Your task to perform on an android device: check battery use Image 0: 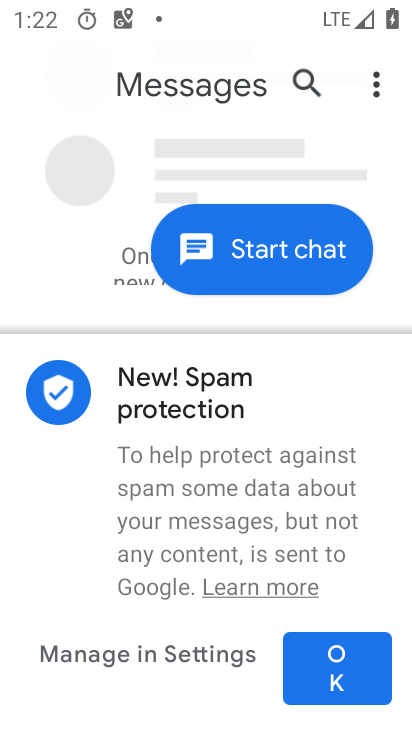
Step 0: press home button
Your task to perform on an android device: check battery use Image 1: 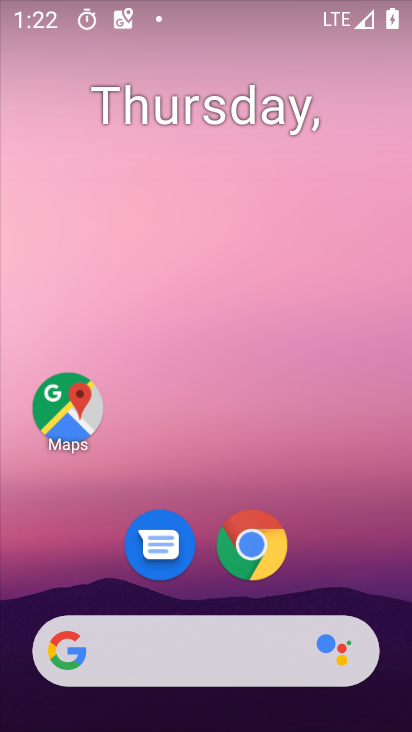
Step 1: drag from (248, 507) to (328, 1)
Your task to perform on an android device: check battery use Image 2: 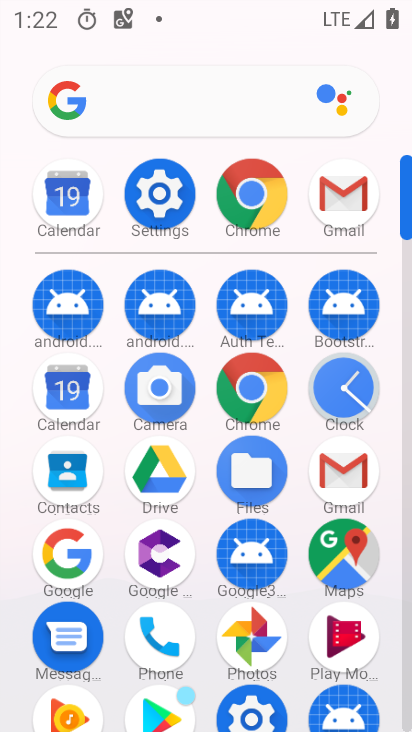
Step 2: click (171, 187)
Your task to perform on an android device: check battery use Image 3: 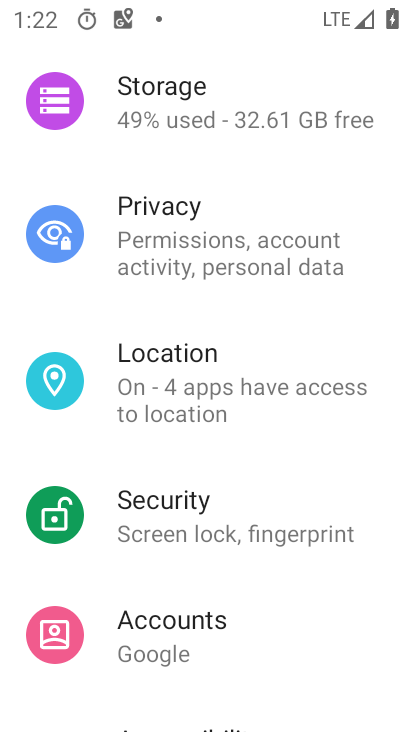
Step 3: drag from (247, 274) to (279, 728)
Your task to perform on an android device: check battery use Image 4: 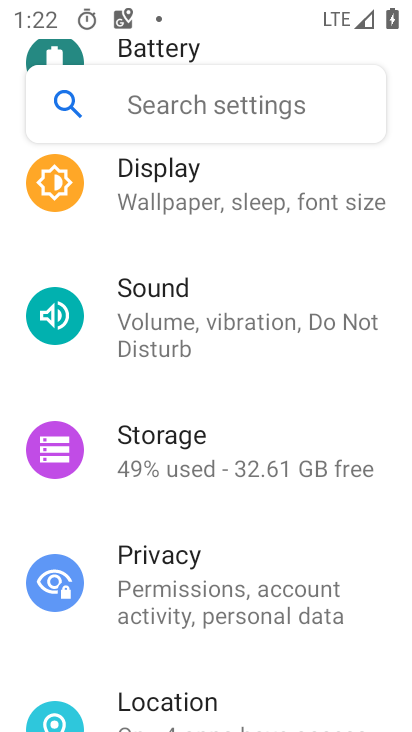
Step 4: drag from (249, 210) to (238, 622)
Your task to perform on an android device: check battery use Image 5: 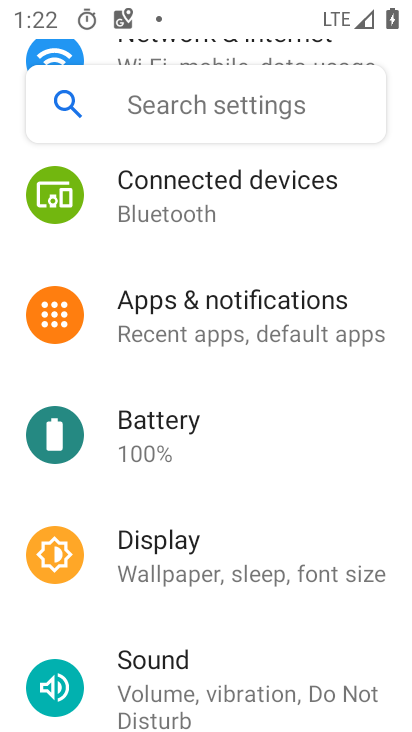
Step 5: click (248, 427)
Your task to perform on an android device: check battery use Image 6: 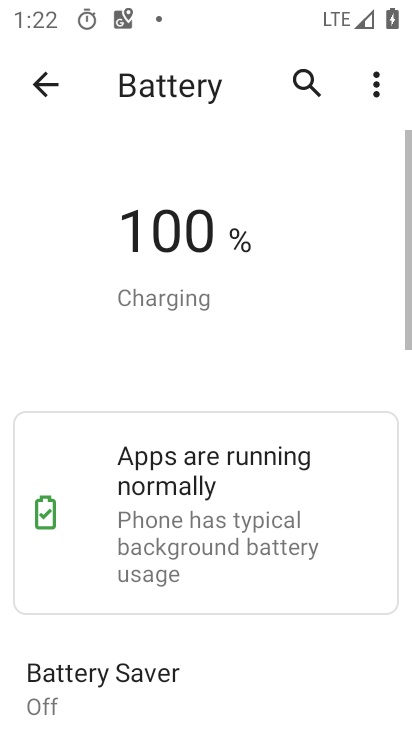
Step 6: task complete